Your task to perform on an android device: Open calendar and show me the first week of next month Image 0: 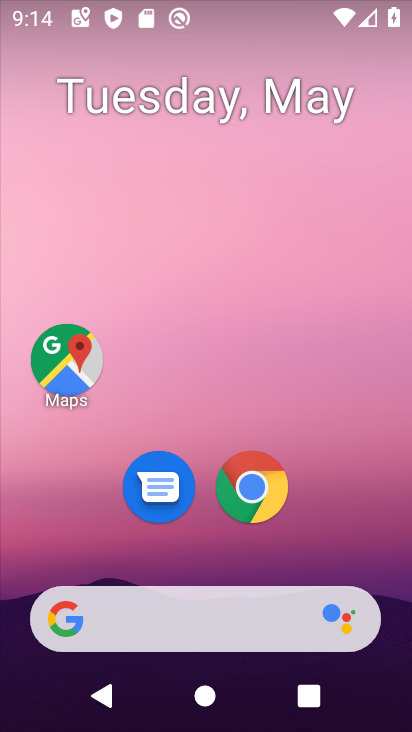
Step 0: drag from (384, 567) to (365, 242)
Your task to perform on an android device: Open calendar and show me the first week of next month Image 1: 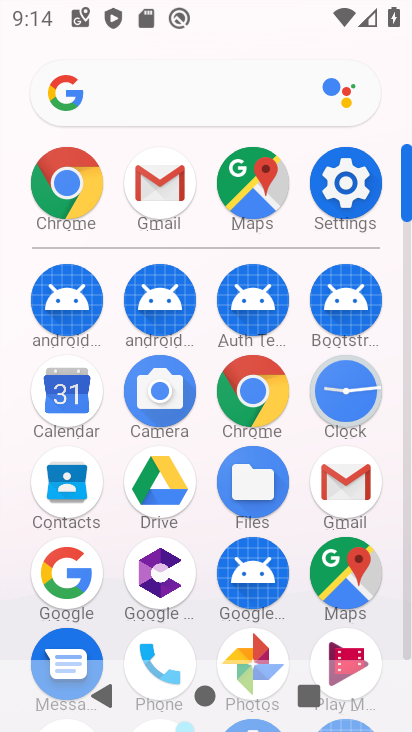
Step 1: click (64, 418)
Your task to perform on an android device: Open calendar and show me the first week of next month Image 2: 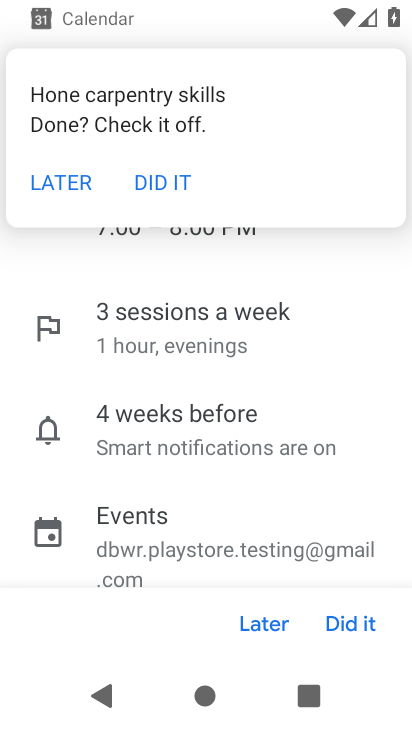
Step 2: click (49, 86)
Your task to perform on an android device: Open calendar and show me the first week of next month Image 3: 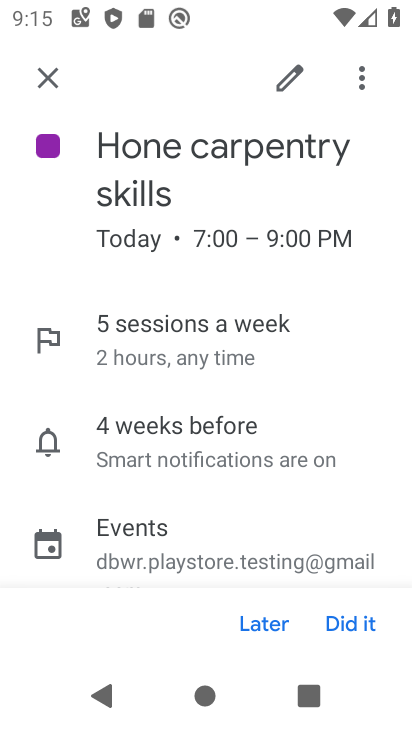
Step 3: click (54, 76)
Your task to perform on an android device: Open calendar and show me the first week of next month Image 4: 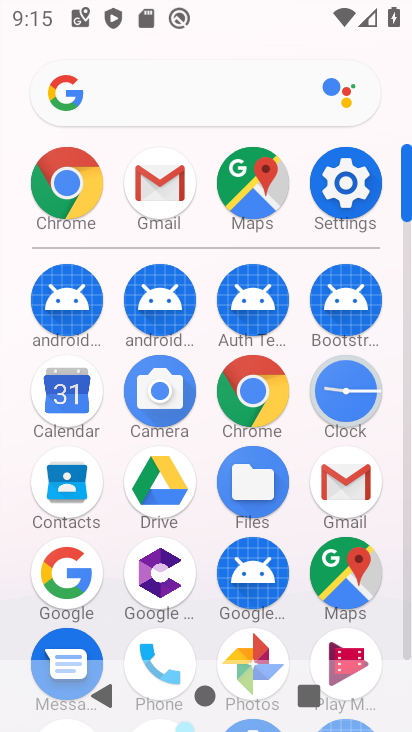
Step 4: click (68, 416)
Your task to perform on an android device: Open calendar and show me the first week of next month Image 5: 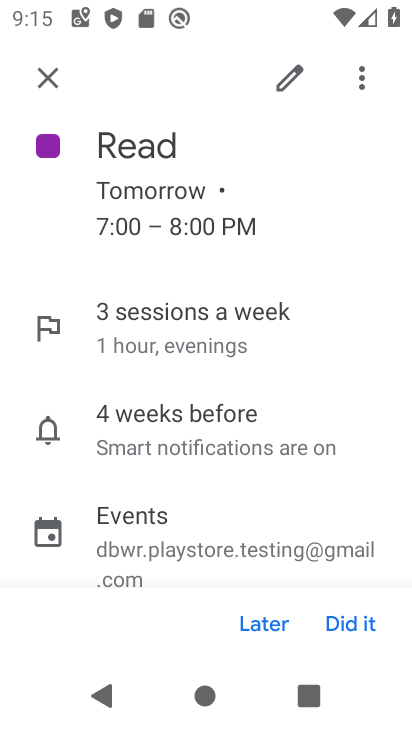
Step 5: press back button
Your task to perform on an android device: Open calendar and show me the first week of next month Image 6: 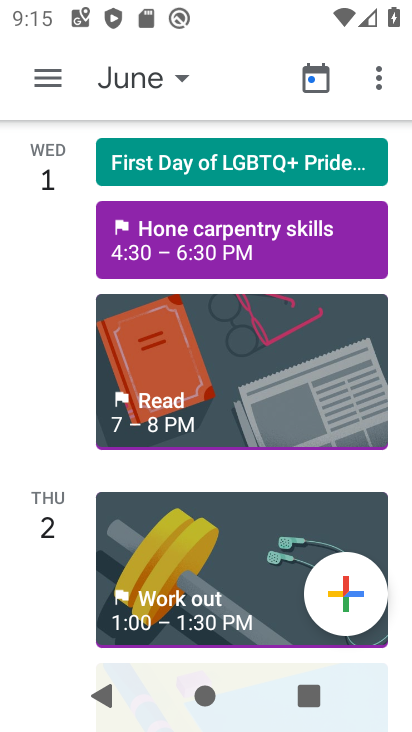
Step 6: click (186, 83)
Your task to perform on an android device: Open calendar and show me the first week of next month Image 7: 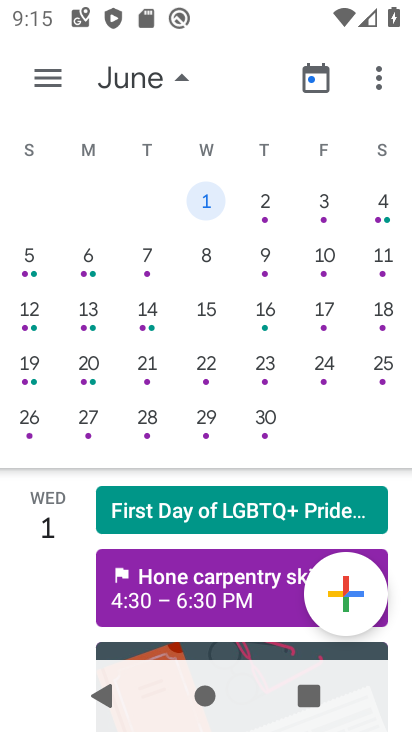
Step 7: drag from (388, 176) to (7, 187)
Your task to perform on an android device: Open calendar and show me the first week of next month Image 8: 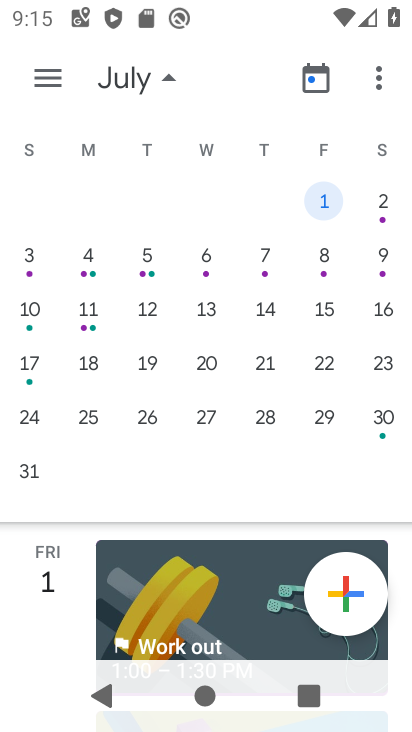
Step 8: click (331, 204)
Your task to perform on an android device: Open calendar and show me the first week of next month Image 9: 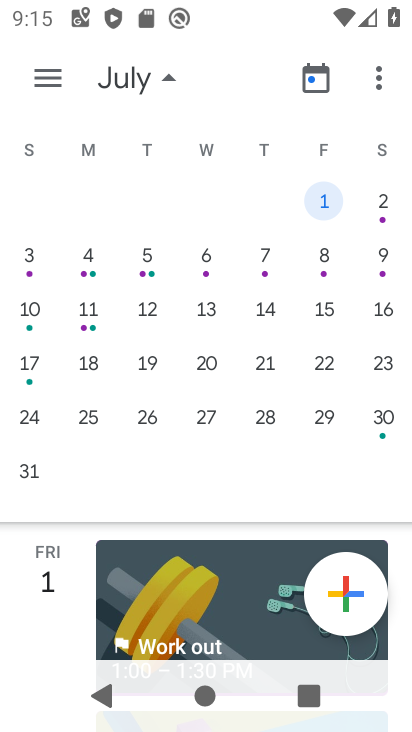
Step 9: task complete